Your task to perform on an android device: delete a single message in the gmail app Image 0: 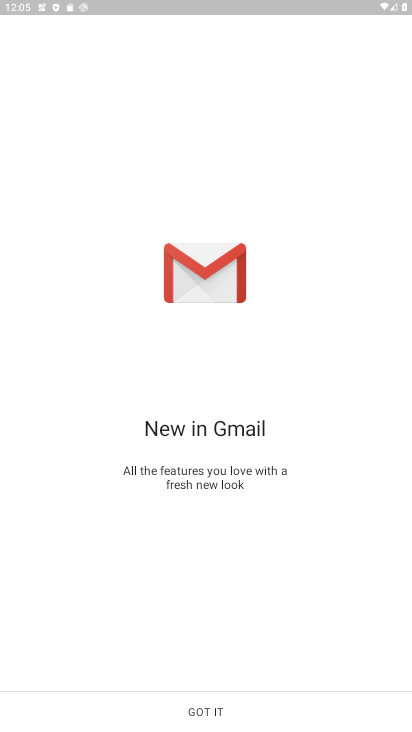
Step 0: click (189, 699)
Your task to perform on an android device: delete a single message in the gmail app Image 1: 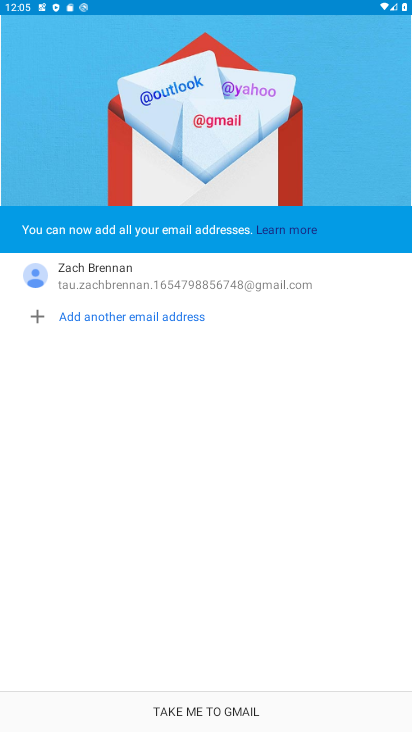
Step 1: click (212, 699)
Your task to perform on an android device: delete a single message in the gmail app Image 2: 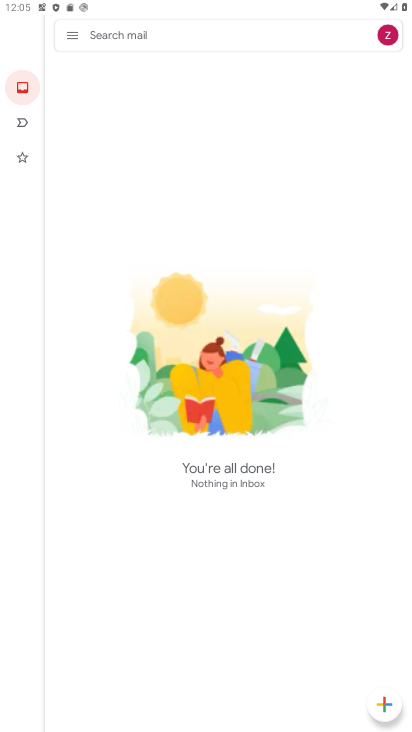
Step 2: click (75, 33)
Your task to perform on an android device: delete a single message in the gmail app Image 3: 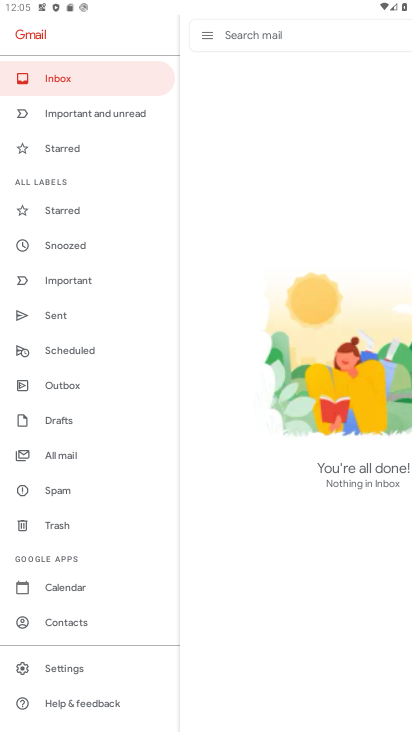
Step 3: click (203, 34)
Your task to perform on an android device: delete a single message in the gmail app Image 4: 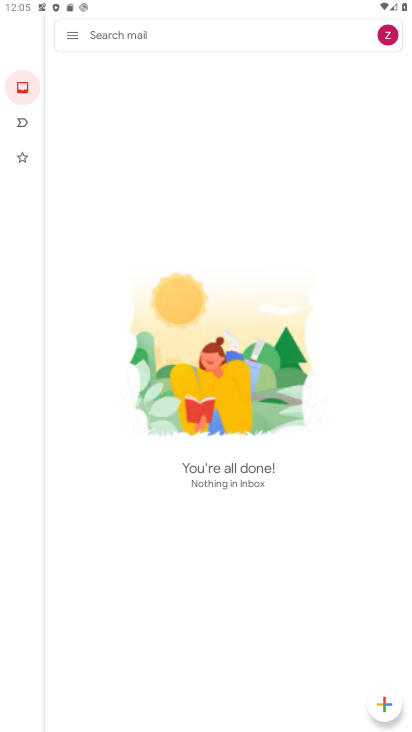
Step 4: click (74, 32)
Your task to perform on an android device: delete a single message in the gmail app Image 5: 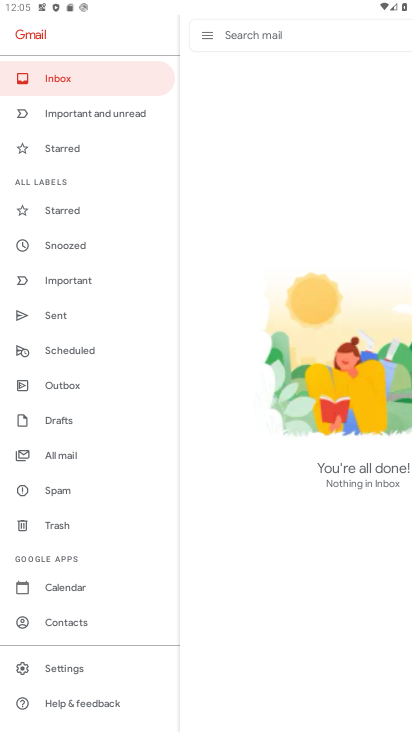
Step 5: click (71, 664)
Your task to perform on an android device: delete a single message in the gmail app Image 6: 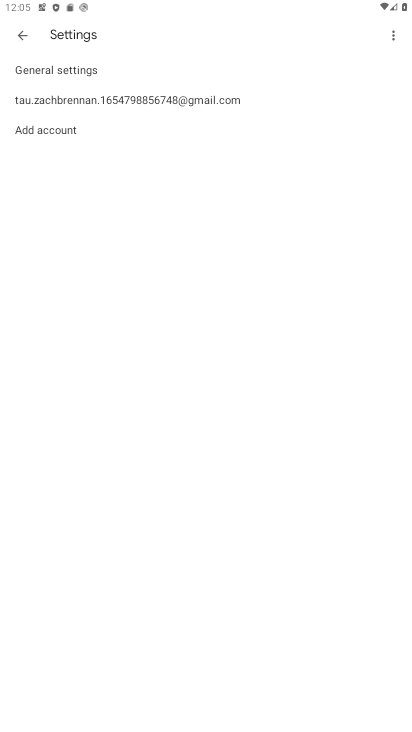
Step 6: click (104, 95)
Your task to perform on an android device: delete a single message in the gmail app Image 7: 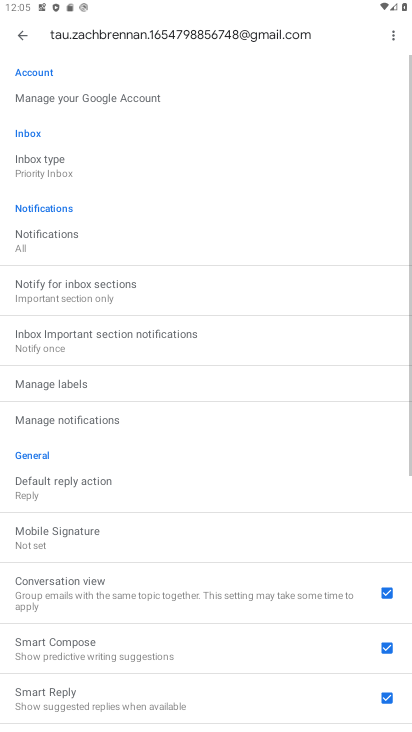
Step 7: click (21, 37)
Your task to perform on an android device: delete a single message in the gmail app Image 8: 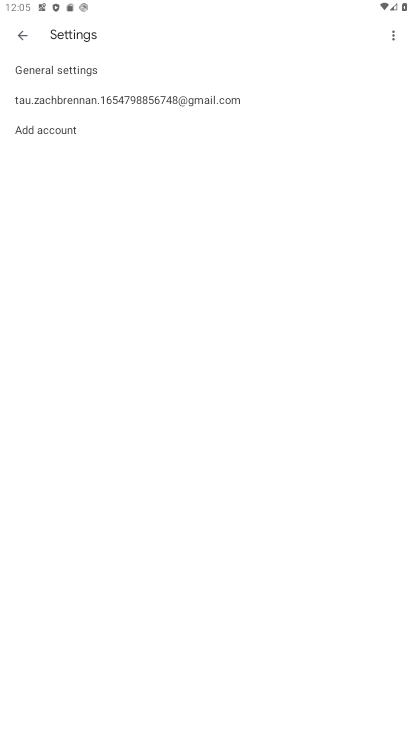
Step 8: click (22, 38)
Your task to perform on an android device: delete a single message in the gmail app Image 9: 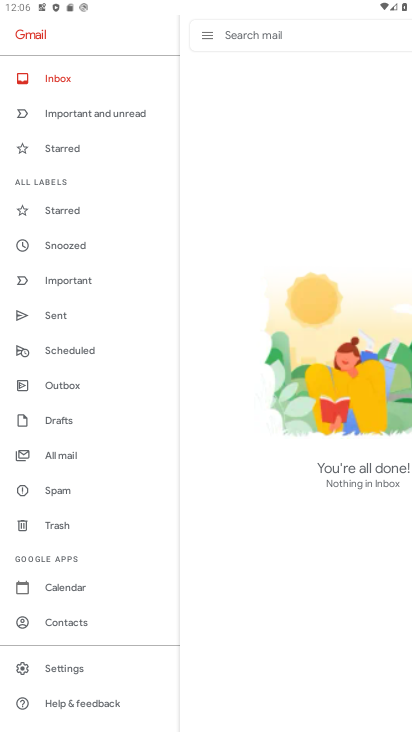
Step 9: click (255, 198)
Your task to perform on an android device: delete a single message in the gmail app Image 10: 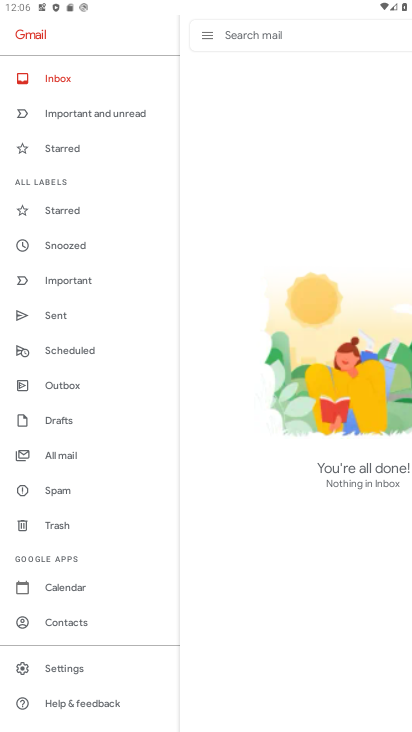
Step 10: task complete